Your task to perform on an android device: turn on improve location accuracy Image 0: 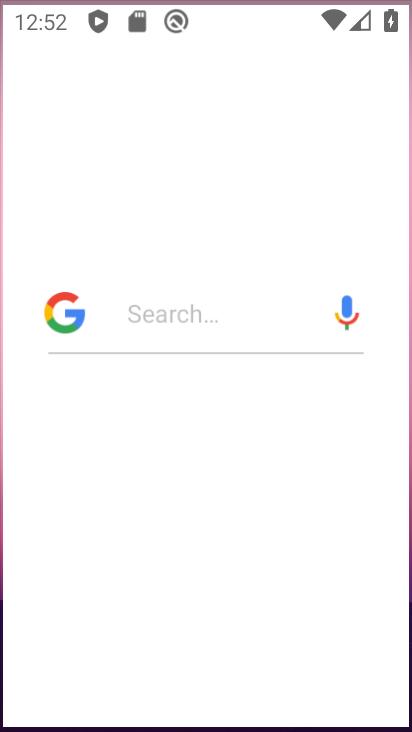
Step 0: drag from (230, 603) to (230, 192)
Your task to perform on an android device: turn on improve location accuracy Image 1: 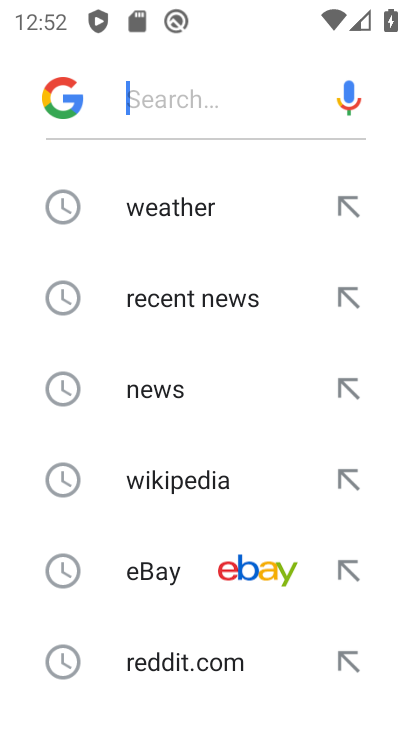
Step 1: press home button
Your task to perform on an android device: turn on improve location accuracy Image 2: 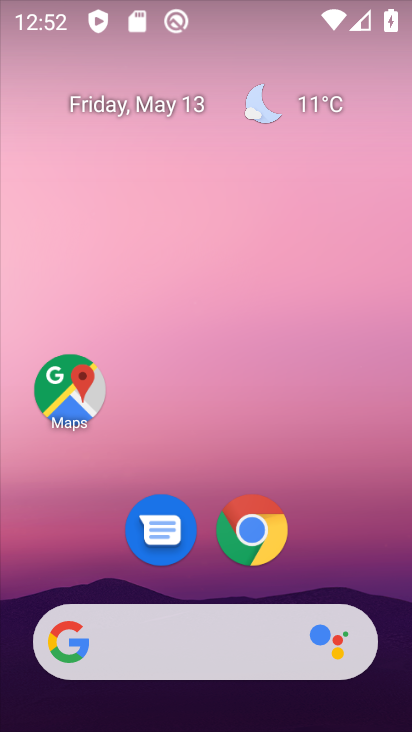
Step 2: drag from (165, 490) to (200, 147)
Your task to perform on an android device: turn on improve location accuracy Image 3: 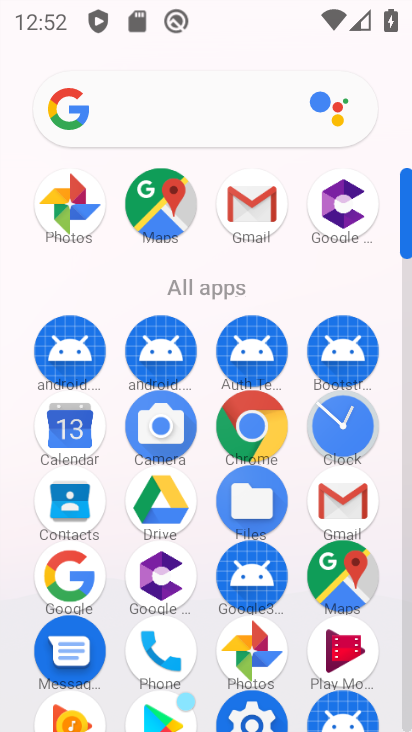
Step 3: drag from (297, 627) to (304, 261)
Your task to perform on an android device: turn on improve location accuracy Image 4: 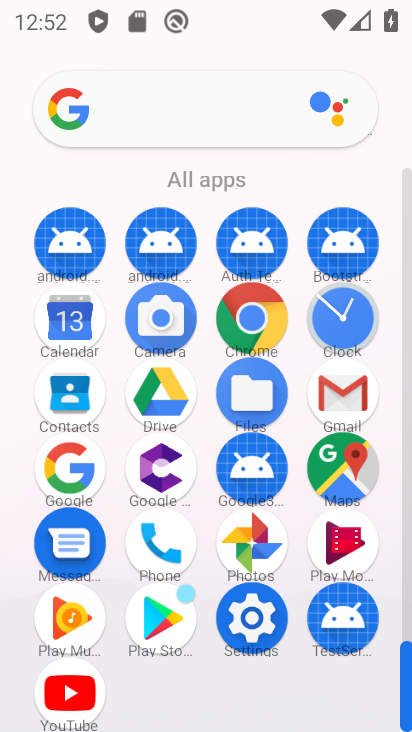
Step 4: click (260, 628)
Your task to perform on an android device: turn on improve location accuracy Image 5: 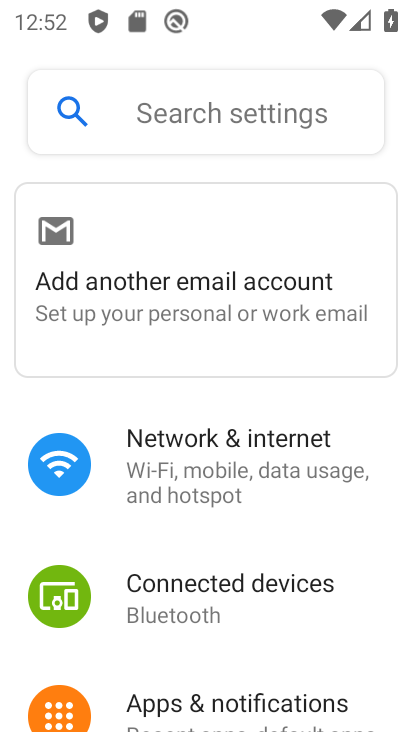
Step 5: drag from (282, 521) to (282, 384)
Your task to perform on an android device: turn on improve location accuracy Image 6: 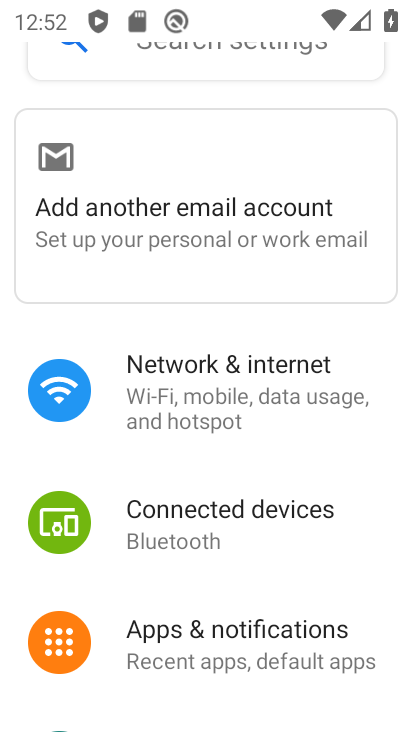
Step 6: drag from (224, 696) to (224, 294)
Your task to perform on an android device: turn on improve location accuracy Image 7: 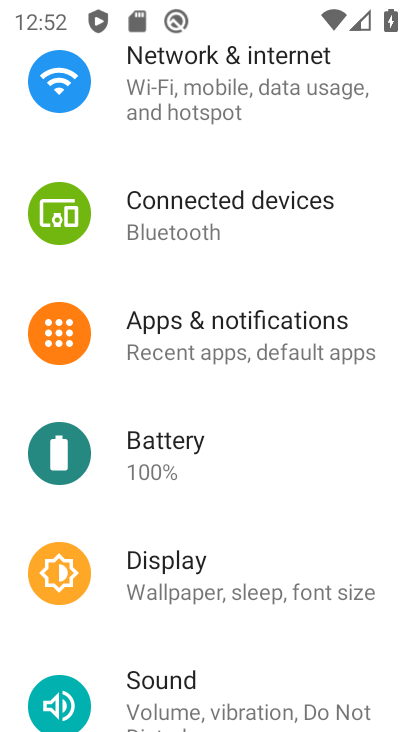
Step 7: drag from (206, 697) to (212, 310)
Your task to perform on an android device: turn on improve location accuracy Image 8: 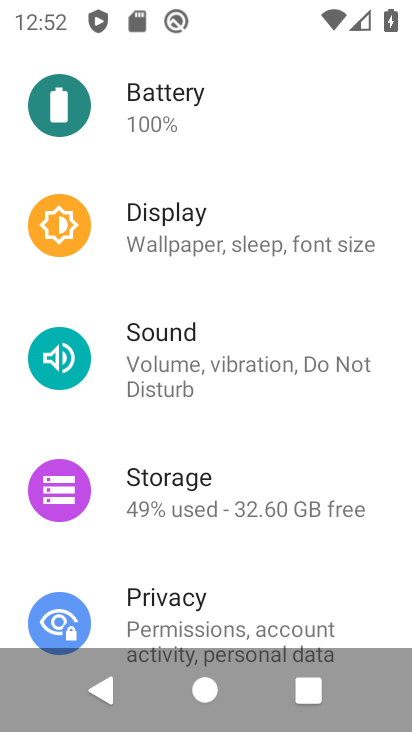
Step 8: drag from (193, 632) to (219, 327)
Your task to perform on an android device: turn on improve location accuracy Image 9: 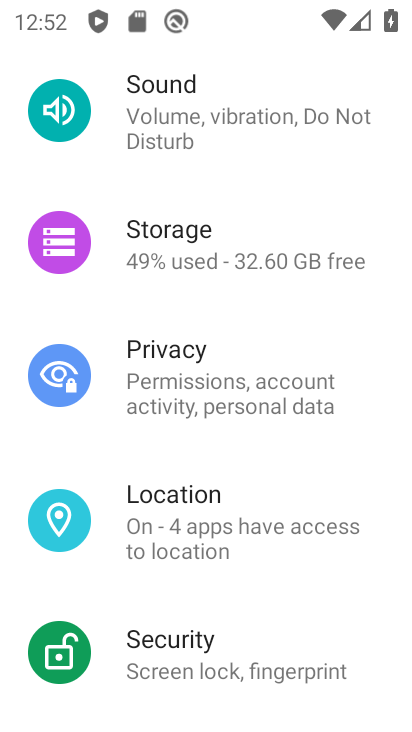
Step 9: click (237, 523)
Your task to perform on an android device: turn on improve location accuracy Image 10: 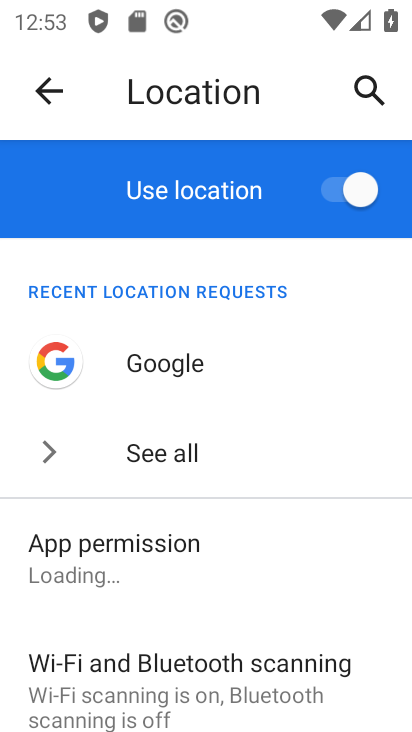
Step 10: drag from (135, 693) to (179, 289)
Your task to perform on an android device: turn on improve location accuracy Image 11: 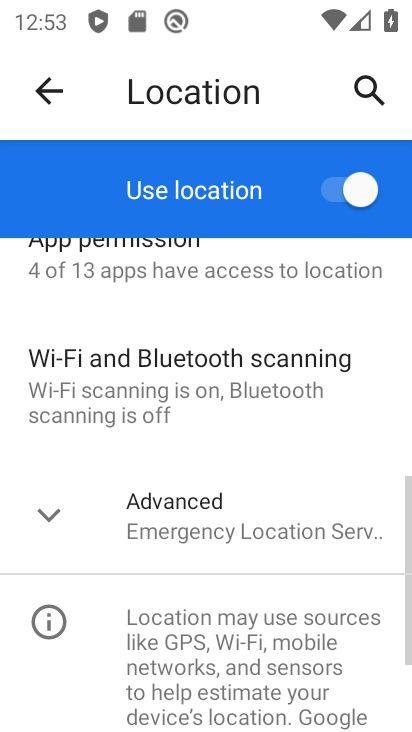
Step 11: click (208, 508)
Your task to perform on an android device: turn on improve location accuracy Image 12: 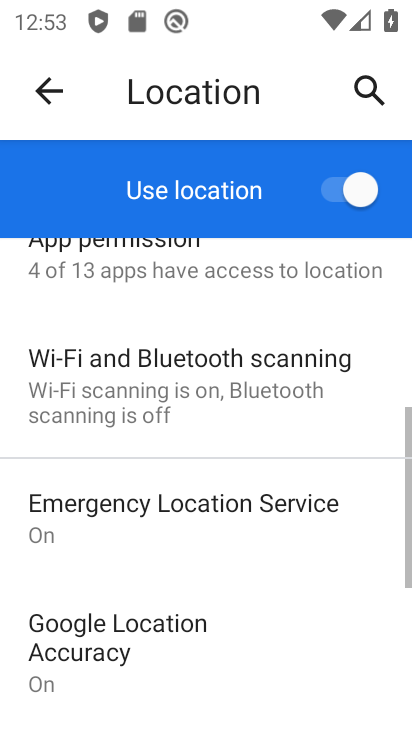
Step 12: drag from (265, 673) to (258, 338)
Your task to perform on an android device: turn on improve location accuracy Image 13: 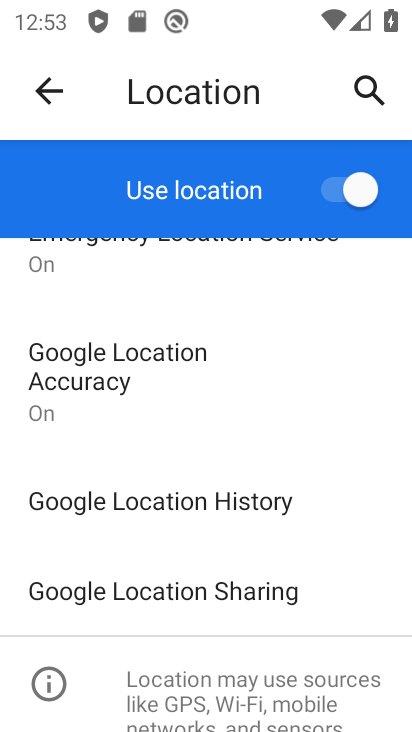
Step 13: click (81, 389)
Your task to perform on an android device: turn on improve location accuracy Image 14: 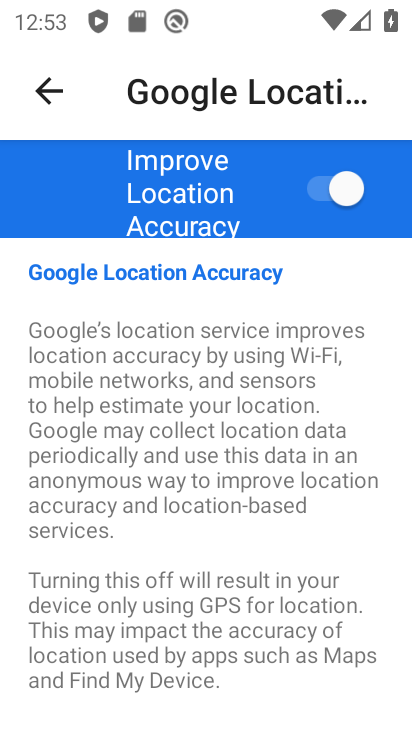
Step 14: task complete